Your task to perform on an android device: Go to ESPN.com Image 0: 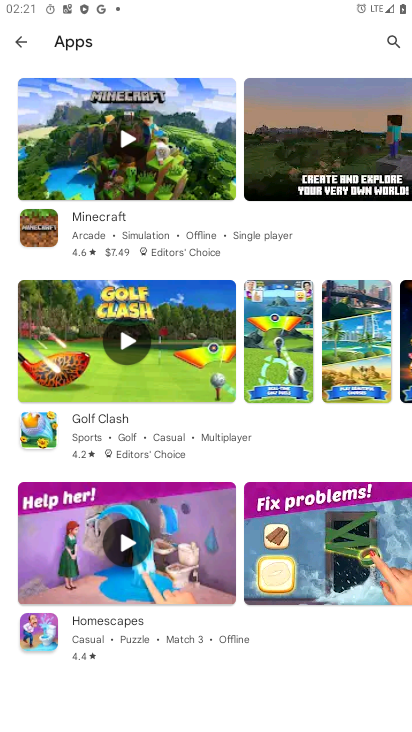
Step 0: press home button
Your task to perform on an android device: Go to ESPN.com Image 1: 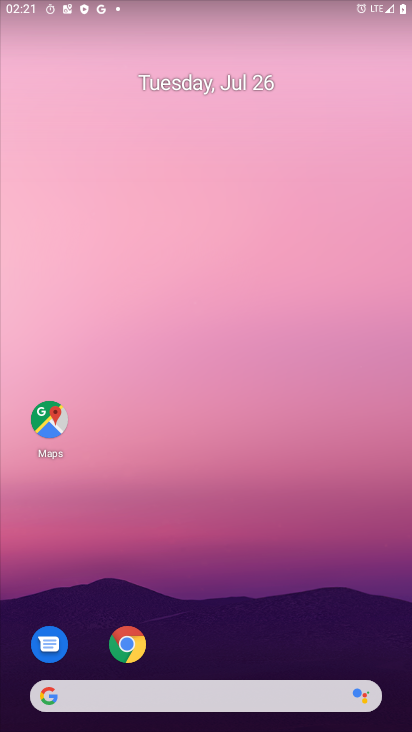
Step 1: click (129, 651)
Your task to perform on an android device: Go to ESPN.com Image 2: 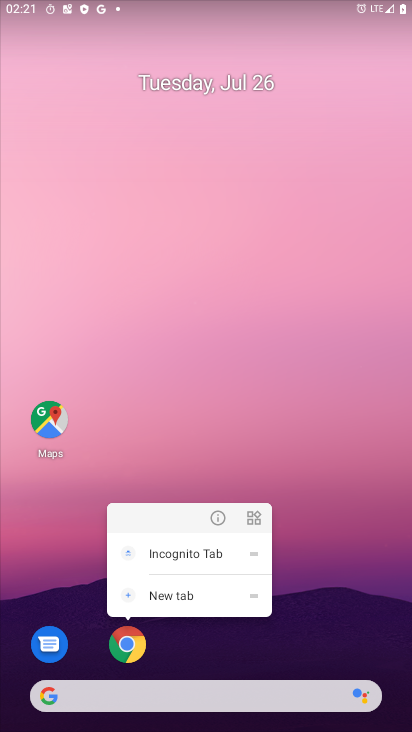
Step 2: click (129, 649)
Your task to perform on an android device: Go to ESPN.com Image 3: 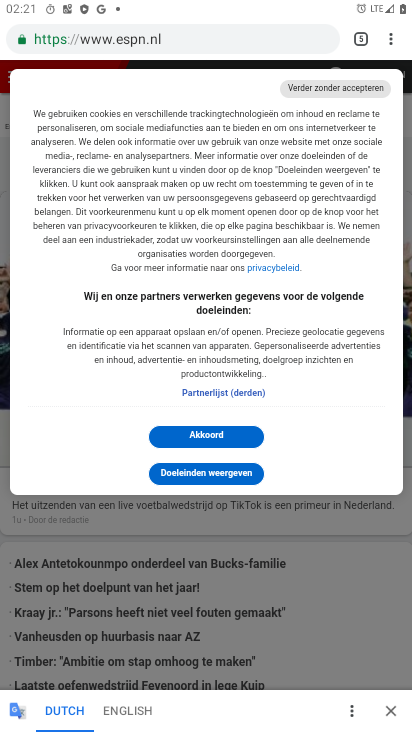
Step 3: task complete